Your task to perform on an android device: Go to notification settings Image 0: 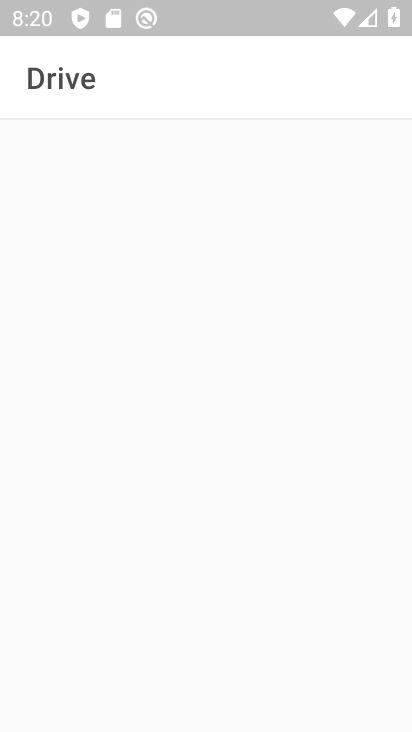
Step 0: press home button
Your task to perform on an android device: Go to notification settings Image 1: 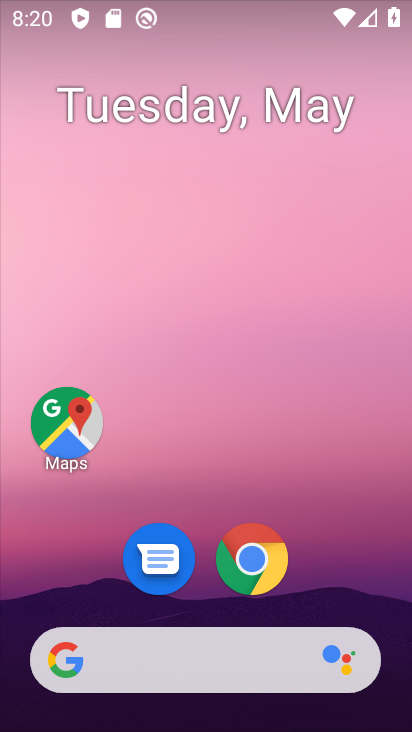
Step 1: drag from (197, 679) to (130, 41)
Your task to perform on an android device: Go to notification settings Image 2: 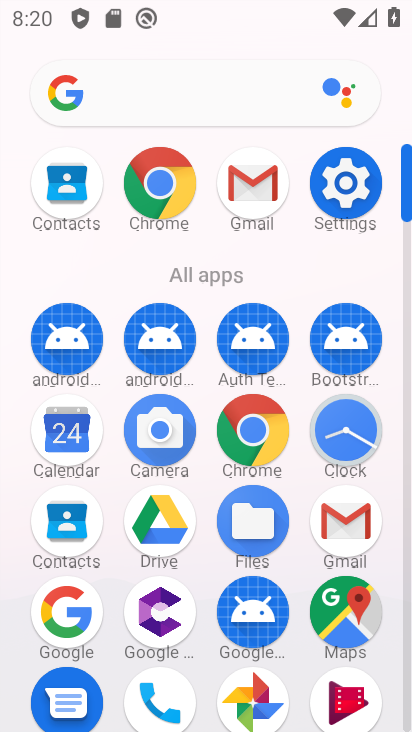
Step 2: click (342, 207)
Your task to perform on an android device: Go to notification settings Image 3: 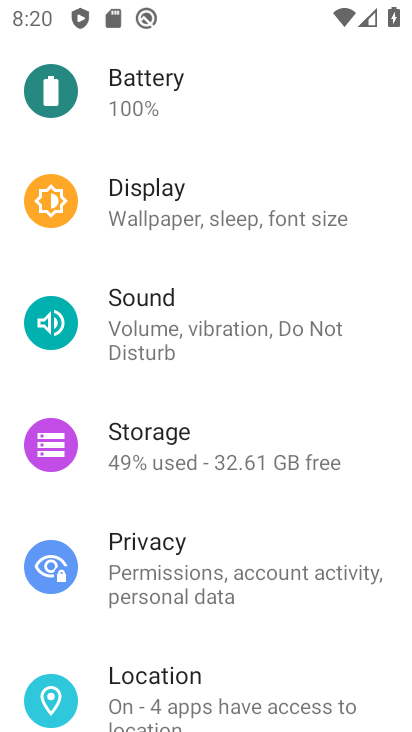
Step 3: drag from (133, 171) to (159, 532)
Your task to perform on an android device: Go to notification settings Image 4: 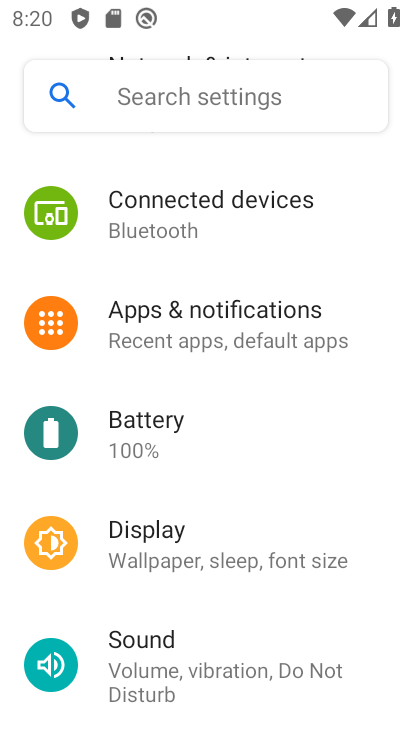
Step 4: click (180, 348)
Your task to perform on an android device: Go to notification settings Image 5: 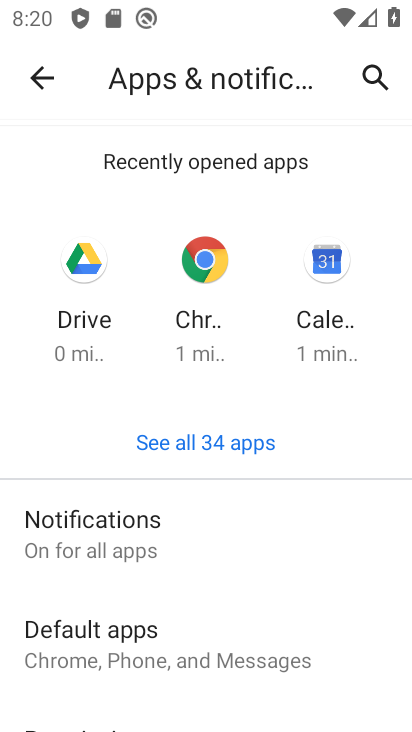
Step 5: task complete